Your task to perform on an android device: toggle notification dots Image 0: 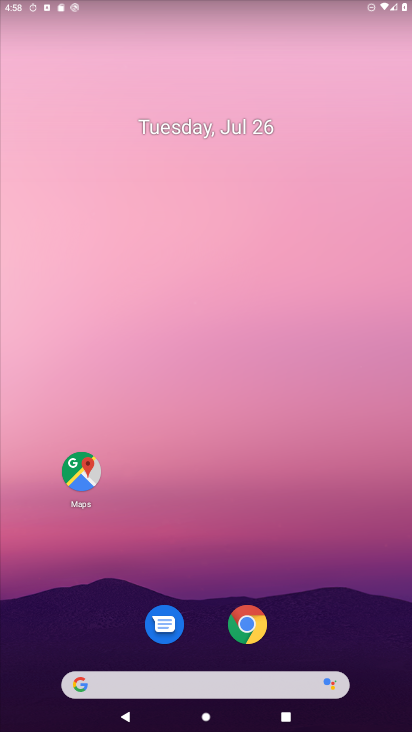
Step 0: drag from (150, 680) to (153, 52)
Your task to perform on an android device: toggle notification dots Image 1: 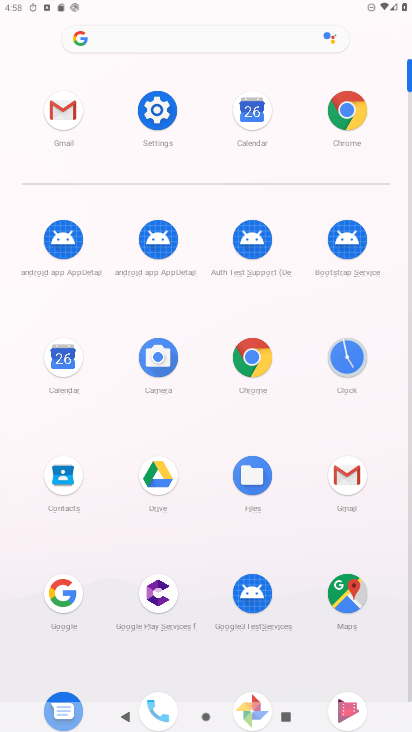
Step 1: click (157, 103)
Your task to perform on an android device: toggle notification dots Image 2: 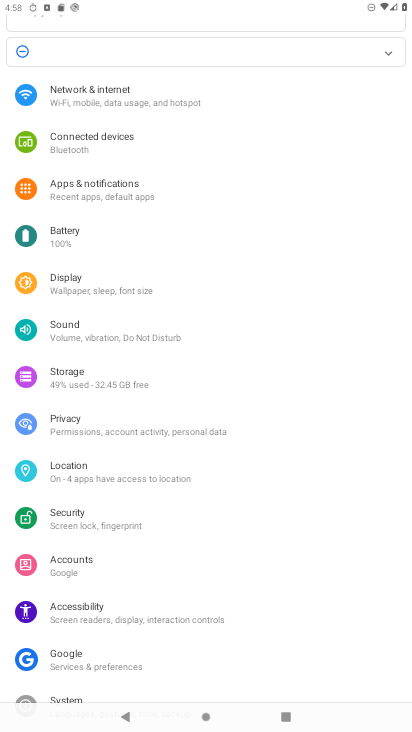
Step 2: click (128, 176)
Your task to perform on an android device: toggle notification dots Image 3: 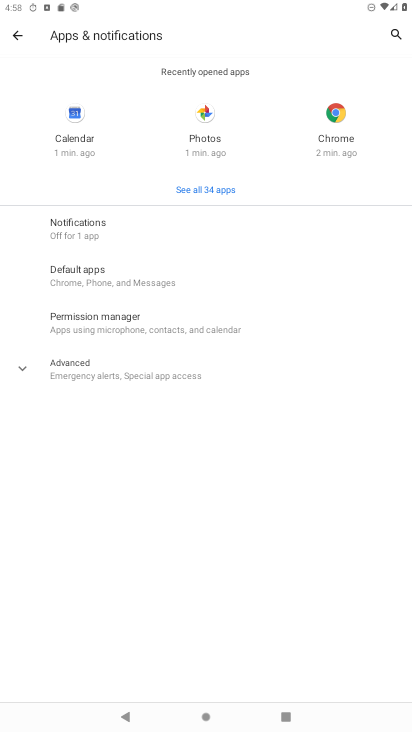
Step 3: click (93, 236)
Your task to perform on an android device: toggle notification dots Image 4: 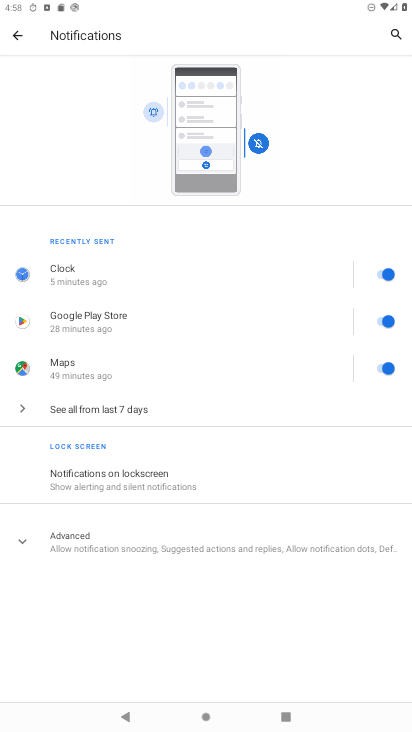
Step 4: click (131, 535)
Your task to perform on an android device: toggle notification dots Image 5: 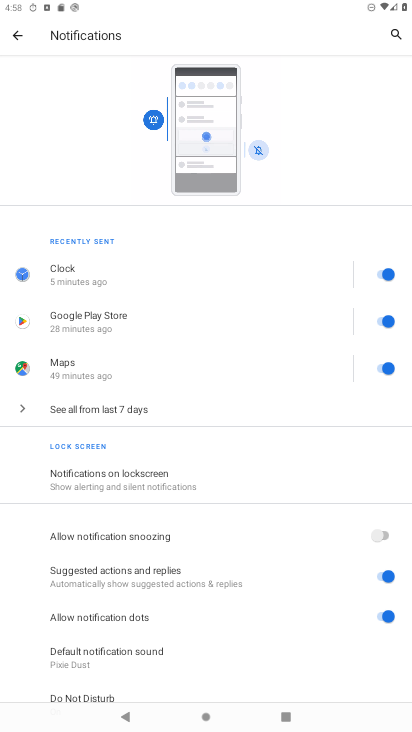
Step 5: click (381, 611)
Your task to perform on an android device: toggle notification dots Image 6: 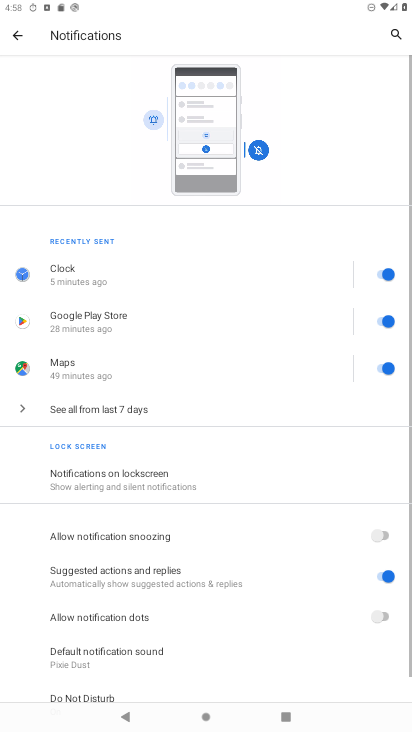
Step 6: task complete